Your task to perform on an android device: check android version Image 0: 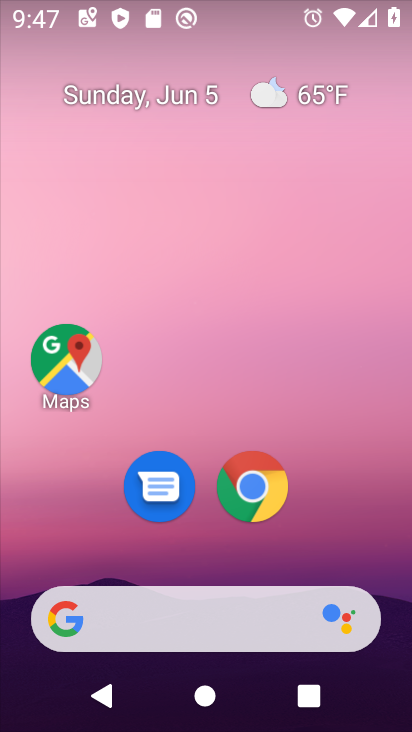
Step 0: drag from (357, 557) to (314, 116)
Your task to perform on an android device: check android version Image 1: 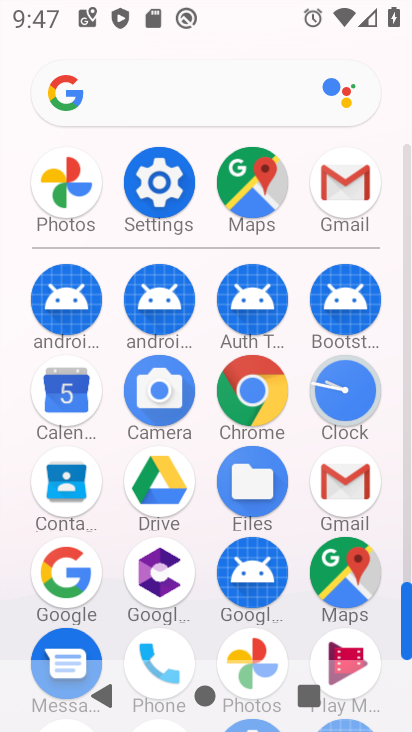
Step 1: click (159, 214)
Your task to perform on an android device: check android version Image 2: 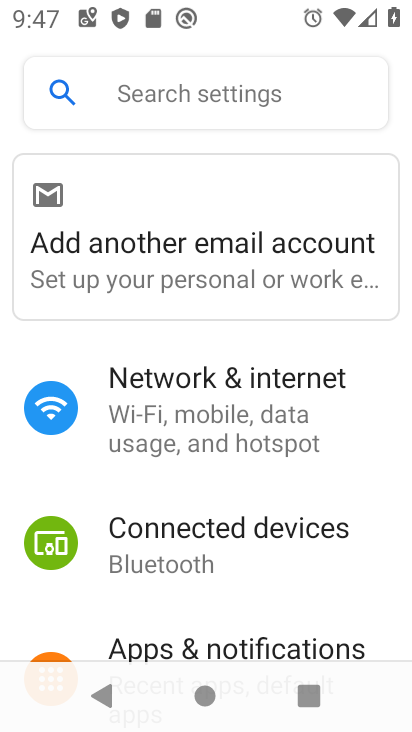
Step 2: drag from (227, 615) to (245, 240)
Your task to perform on an android device: check android version Image 3: 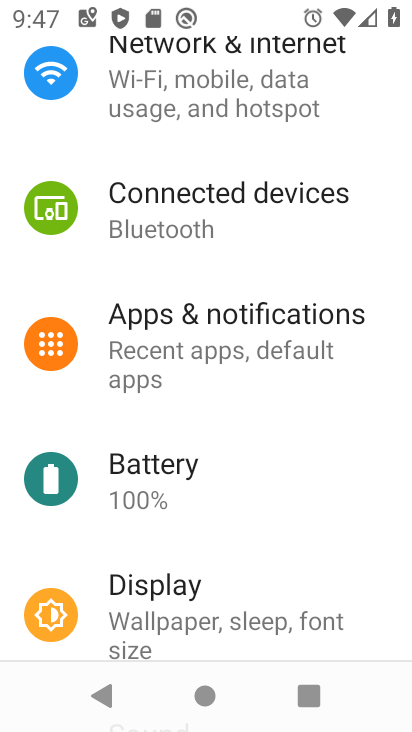
Step 3: drag from (227, 611) to (240, 274)
Your task to perform on an android device: check android version Image 4: 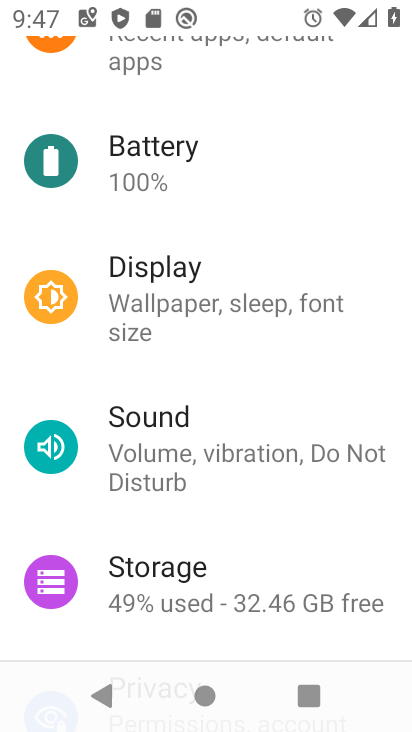
Step 4: drag from (185, 453) to (205, 223)
Your task to perform on an android device: check android version Image 5: 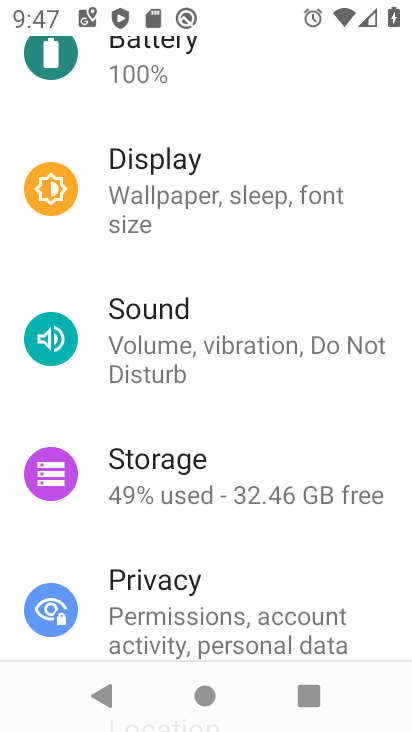
Step 5: click (252, 267)
Your task to perform on an android device: check android version Image 6: 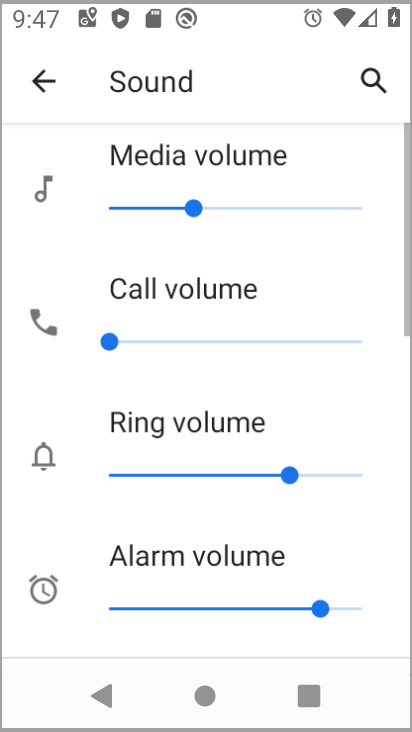
Step 6: drag from (242, 603) to (249, 314)
Your task to perform on an android device: check android version Image 7: 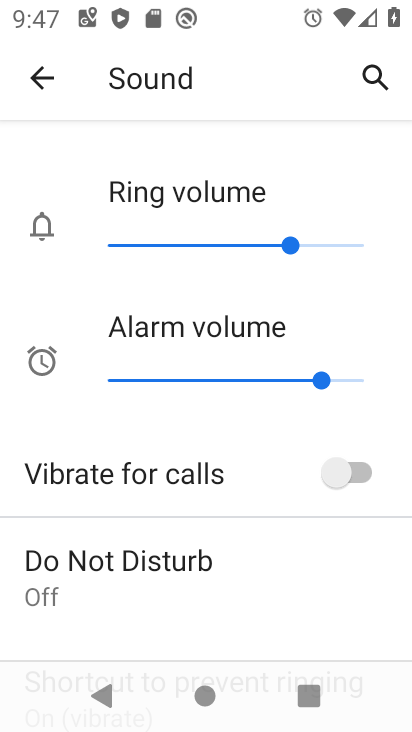
Step 7: click (35, 84)
Your task to perform on an android device: check android version Image 8: 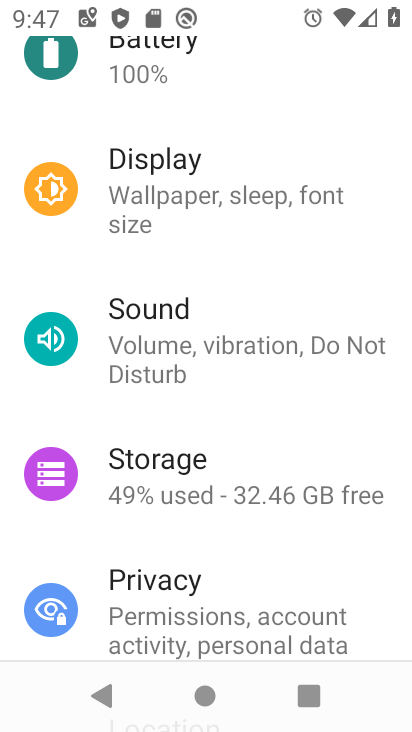
Step 8: drag from (243, 625) to (248, 175)
Your task to perform on an android device: check android version Image 9: 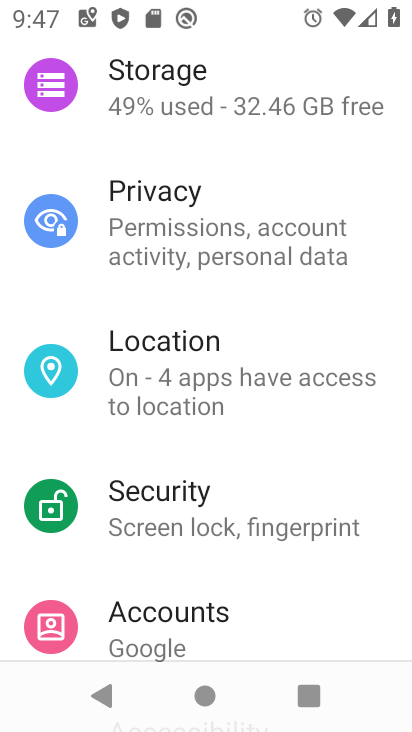
Step 9: drag from (266, 614) to (238, 187)
Your task to perform on an android device: check android version Image 10: 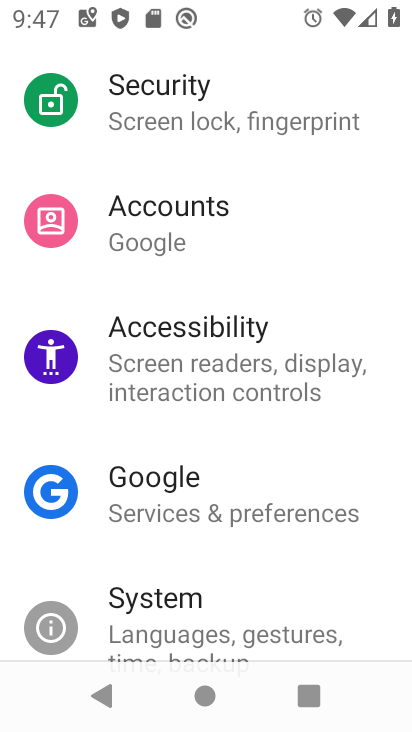
Step 10: drag from (242, 623) to (257, 166)
Your task to perform on an android device: check android version Image 11: 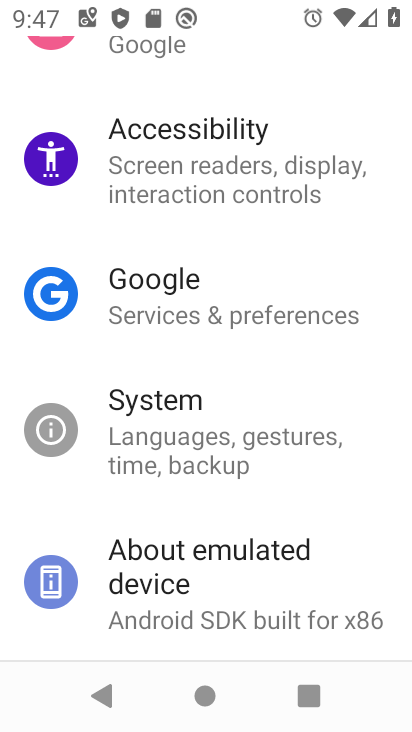
Step 11: click (196, 576)
Your task to perform on an android device: check android version Image 12: 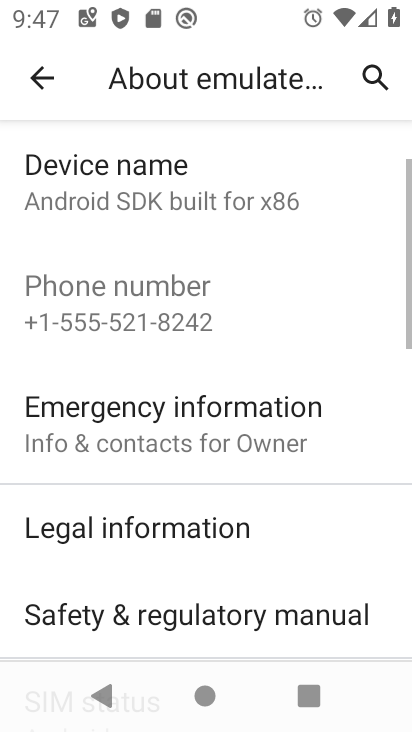
Step 12: drag from (231, 581) to (247, 263)
Your task to perform on an android device: check android version Image 13: 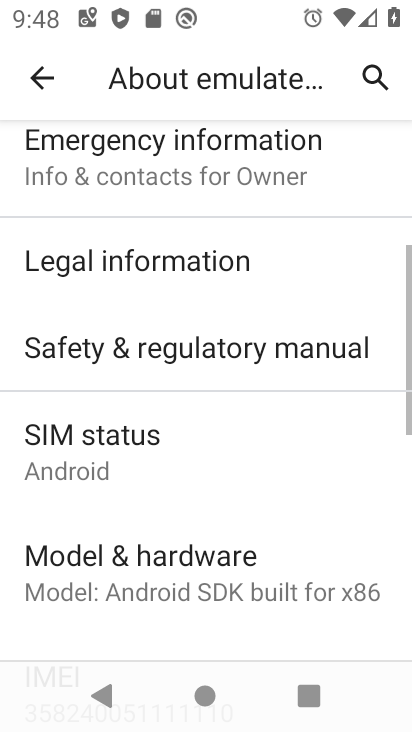
Step 13: drag from (230, 506) to (244, 237)
Your task to perform on an android device: check android version Image 14: 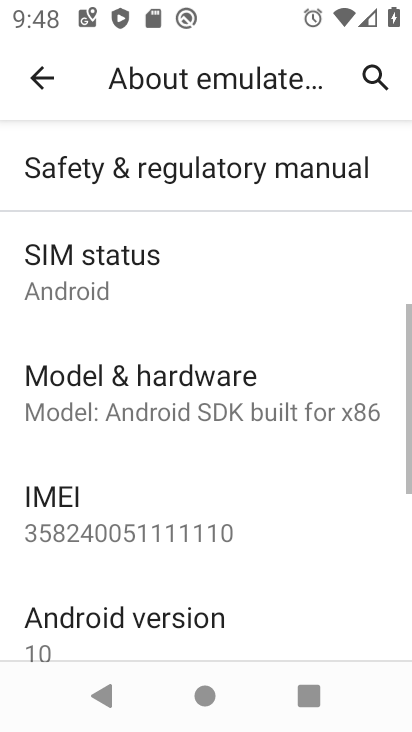
Step 14: click (229, 627)
Your task to perform on an android device: check android version Image 15: 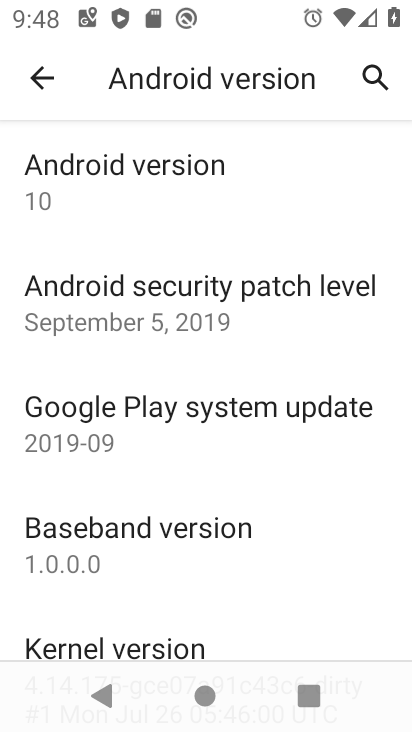
Step 15: click (141, 172)
Your task to perform on an android device: check android version Image 16: 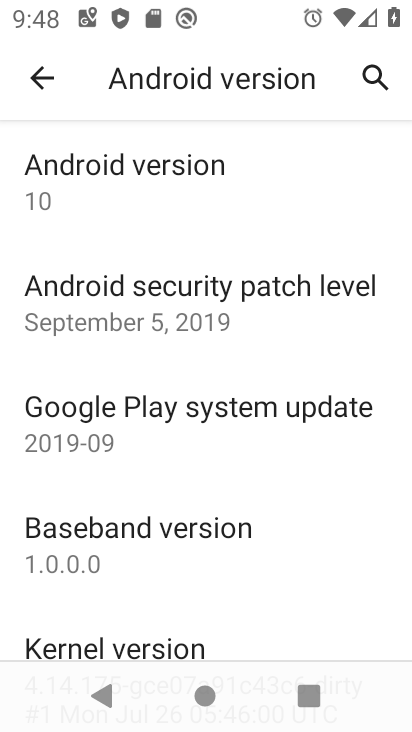
Step 16: task complete